Your task to perform on an android device: toggle notification dots Image 0: 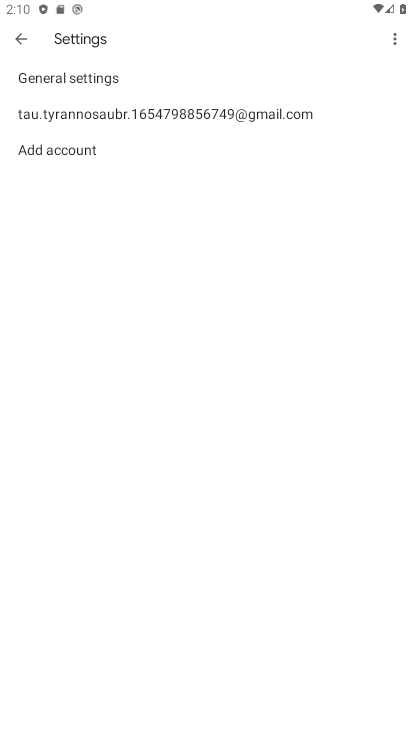
Step 0: press home button
Your task to perform on an android device: toggle notification dots Image 1: 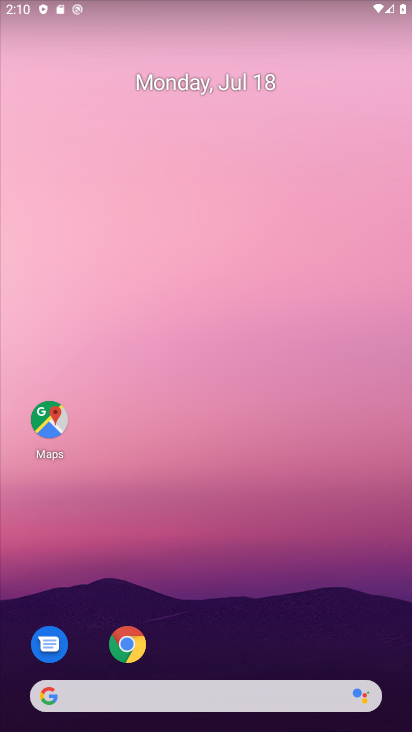
Step 1: drag from (361, 633) to (345, 5)
Your task to perform on an android device: toggle notification dots Image 2: 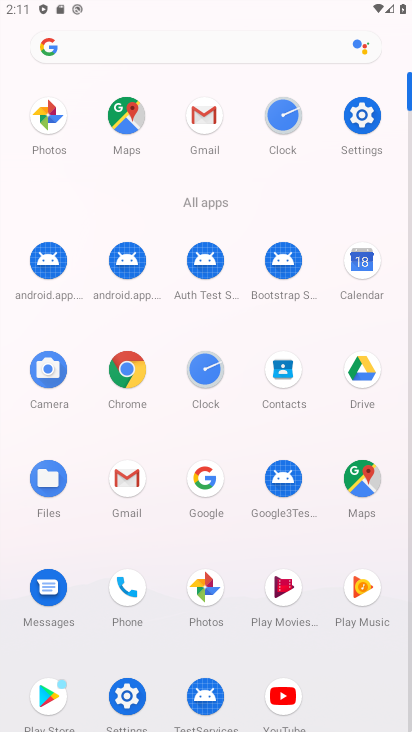
Step 2: click (130, 688)
Your task to perform on an android device: toggle notification dots Image 3: 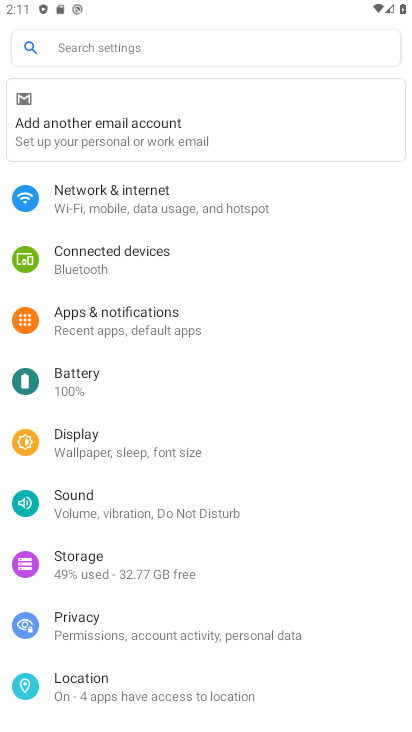
Step 3: click (174, 319)
Your task to perform on an android device: toggle notification dots Image 4: 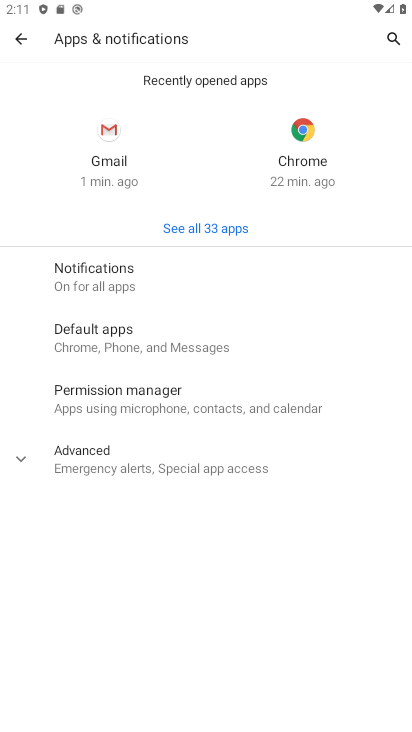
Step 4: click (147, 271)
Your task to perform on an android device: toggle notification dots Image 5: 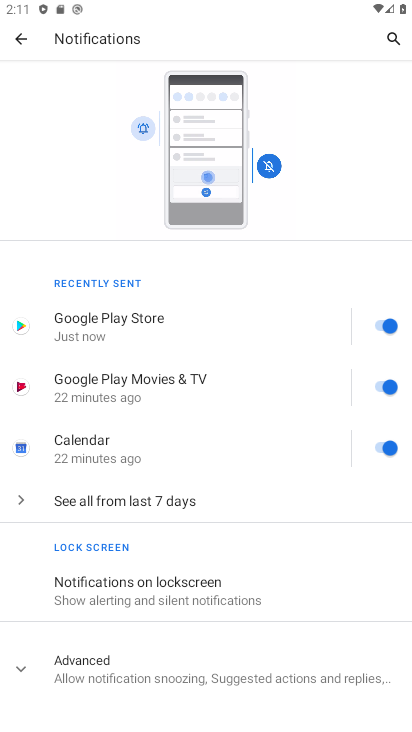
Step 5: click (212, 675)
Your task to perform on an android device: toggle notification dots Image 6: 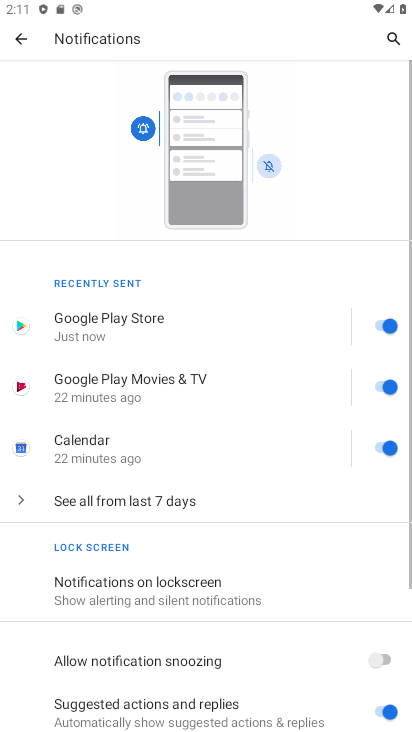
Step 6: drag from (279, 622) to (211, 411)
Your task to perform on an android device: toggle notification dots Image 7: 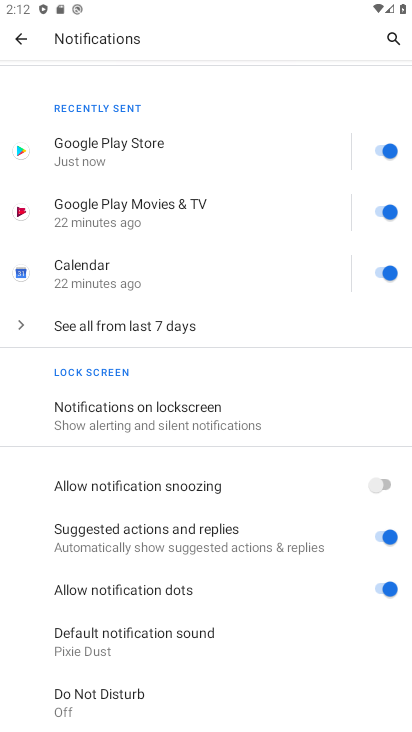
Step 7: click (382, 593)
Your task to perform on an android device: toggle notification dots Image 8: 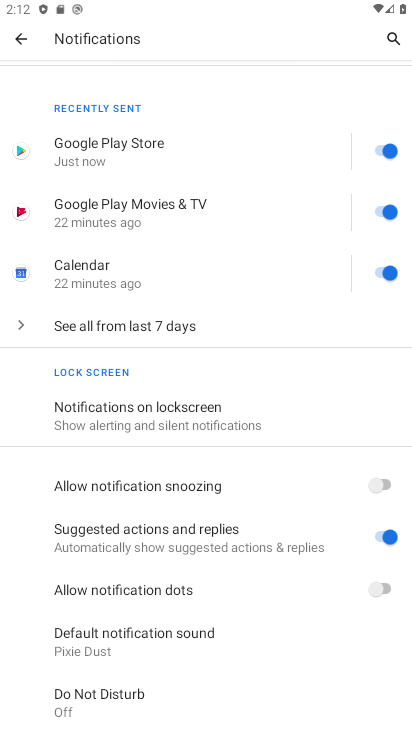
Step 8: task complete